Your task to perform on an android device: open a bookmark in the chrome app Image 0: 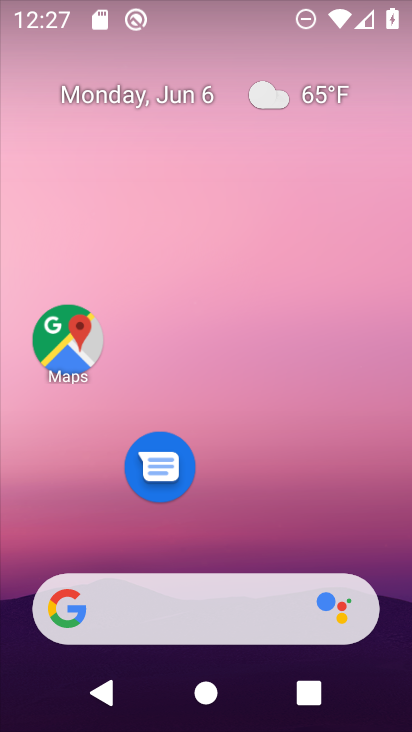
Step 0: drag from (263, 466) to (393, 158)
Your task to perform on an android device: open a bookmark in the chrome app Image 1: 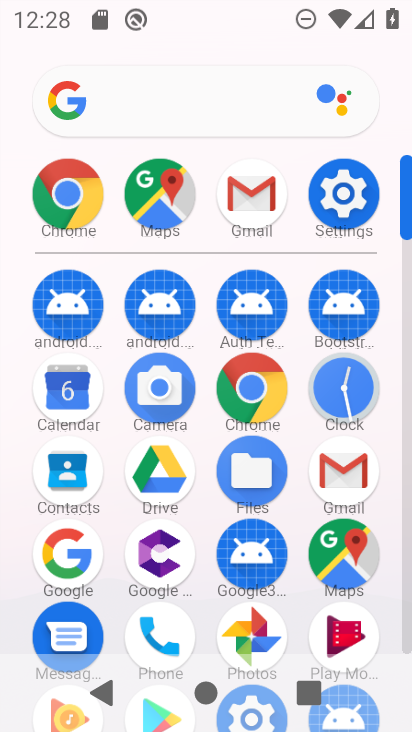
Step 1: click (82, 179)
Your task to perform on an android device: open a bookmark in the chrome app Image 2: 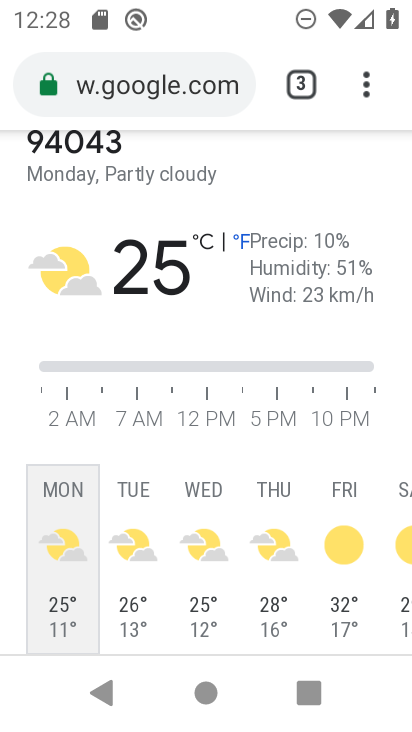
Step 2: task complete